Your task to perform on an android device: Search for a cheap bike on Walmart Image 0: 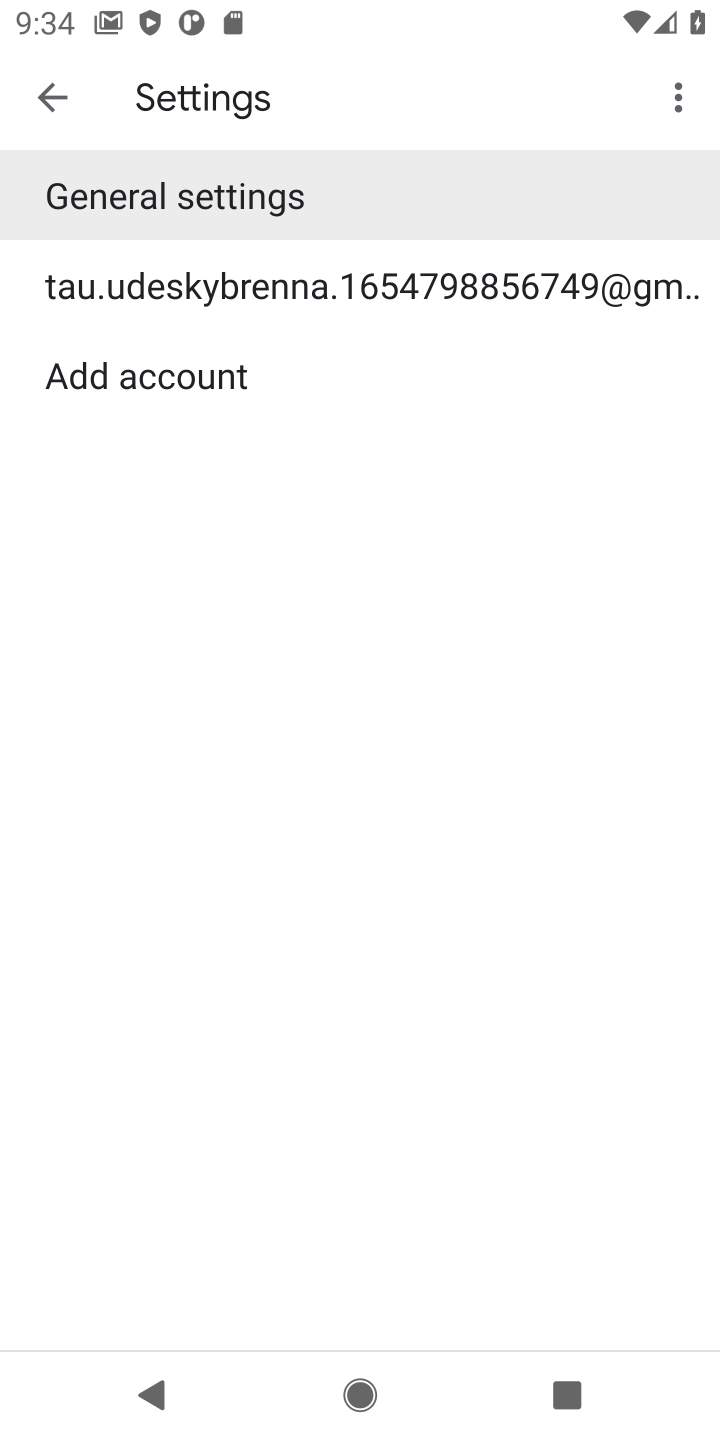
Step 0: press home button
Your task to perform on an android device: Search for a cheap bike on Walmart Image 1: 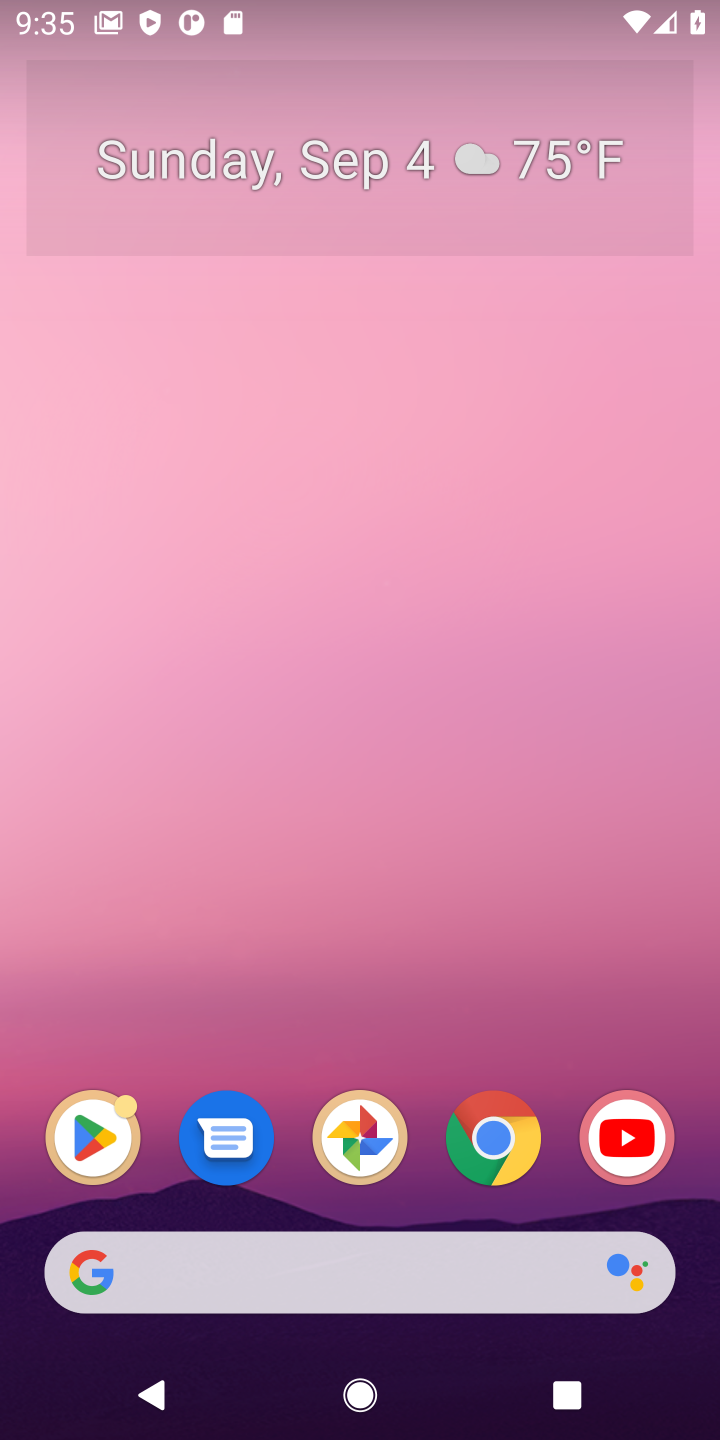
Step 1: click (513, 1153)
Your task to perform on an android device: Search for a cheap bike on Walmart Image 2: 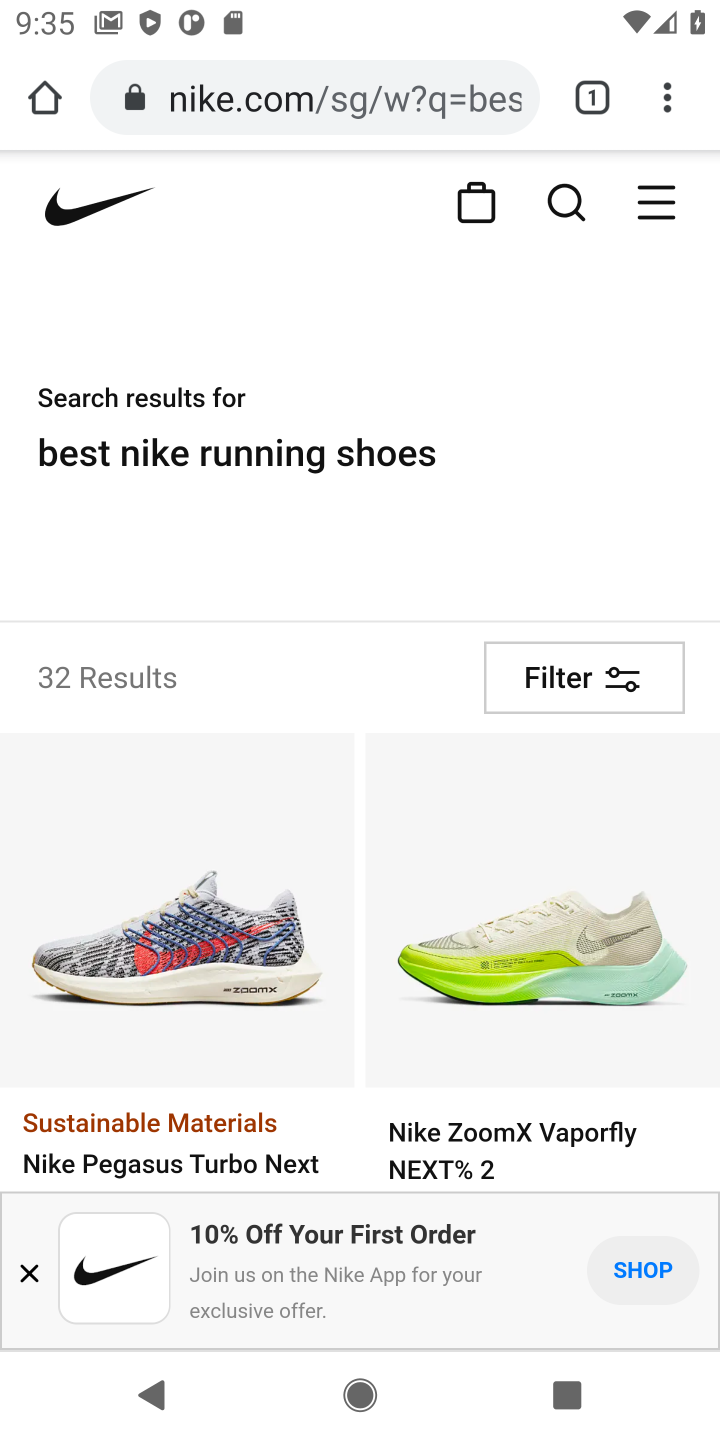
Step 2: click (444, 101)
Your task to perform on an android device: Search for a cheap bike on Walmart Image 3: 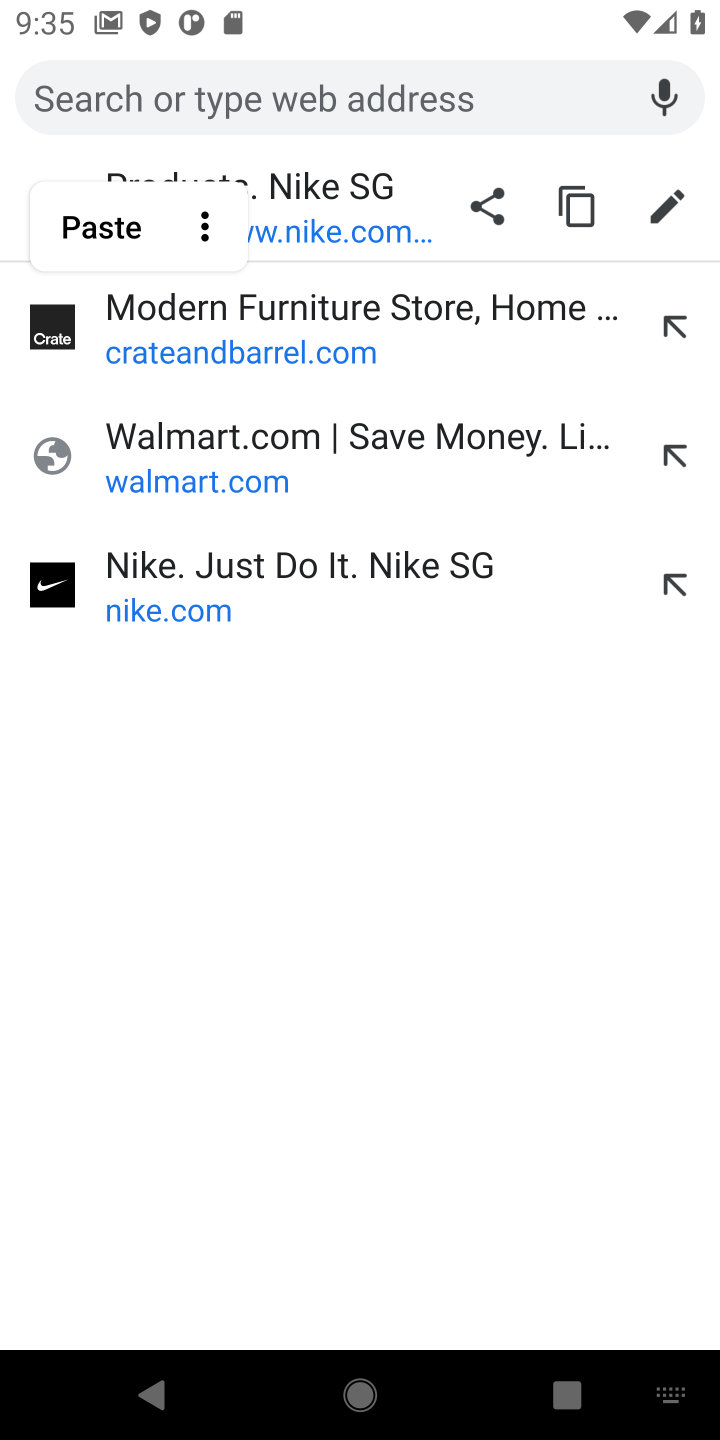
Step 3: type "cheap bike on walmart"
Your task to perform on an android device: Search for a cheap bike on Walmart Image 4: 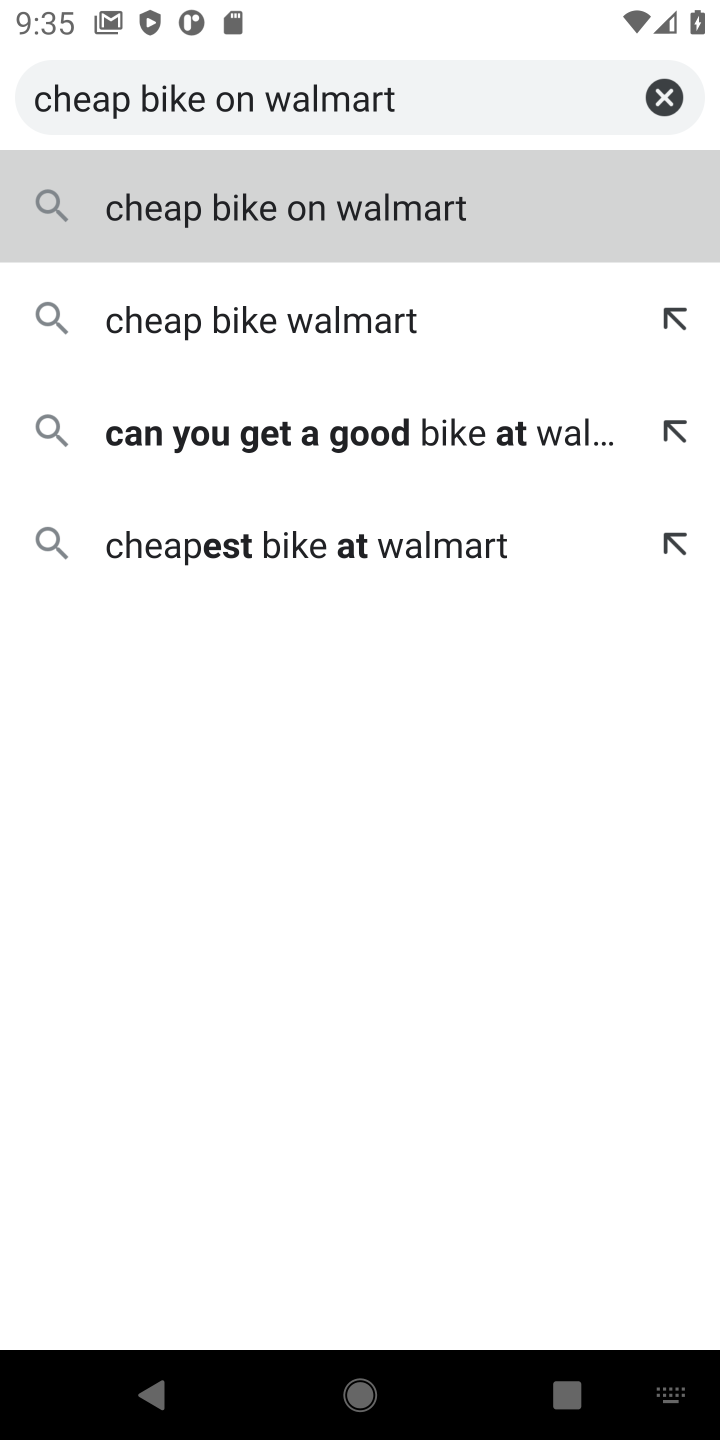
Step 4: click (453, 189)
Your task to perform on an android device: Search for a cheap bike on Walmart Image 5: 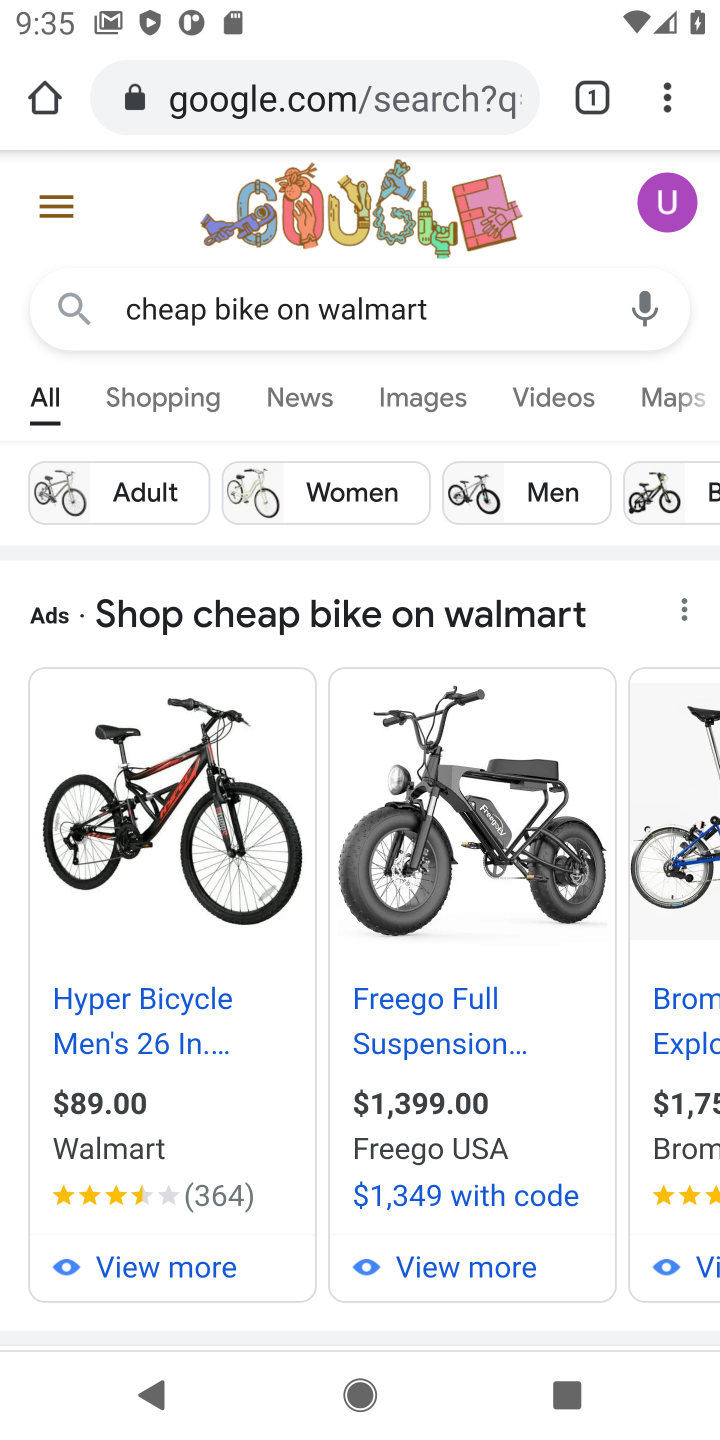
Step 5: drag from (323, 1316) to (145, 176)
Your task to perform on an android device: Search for a cheap bike on Walmart Image 6: 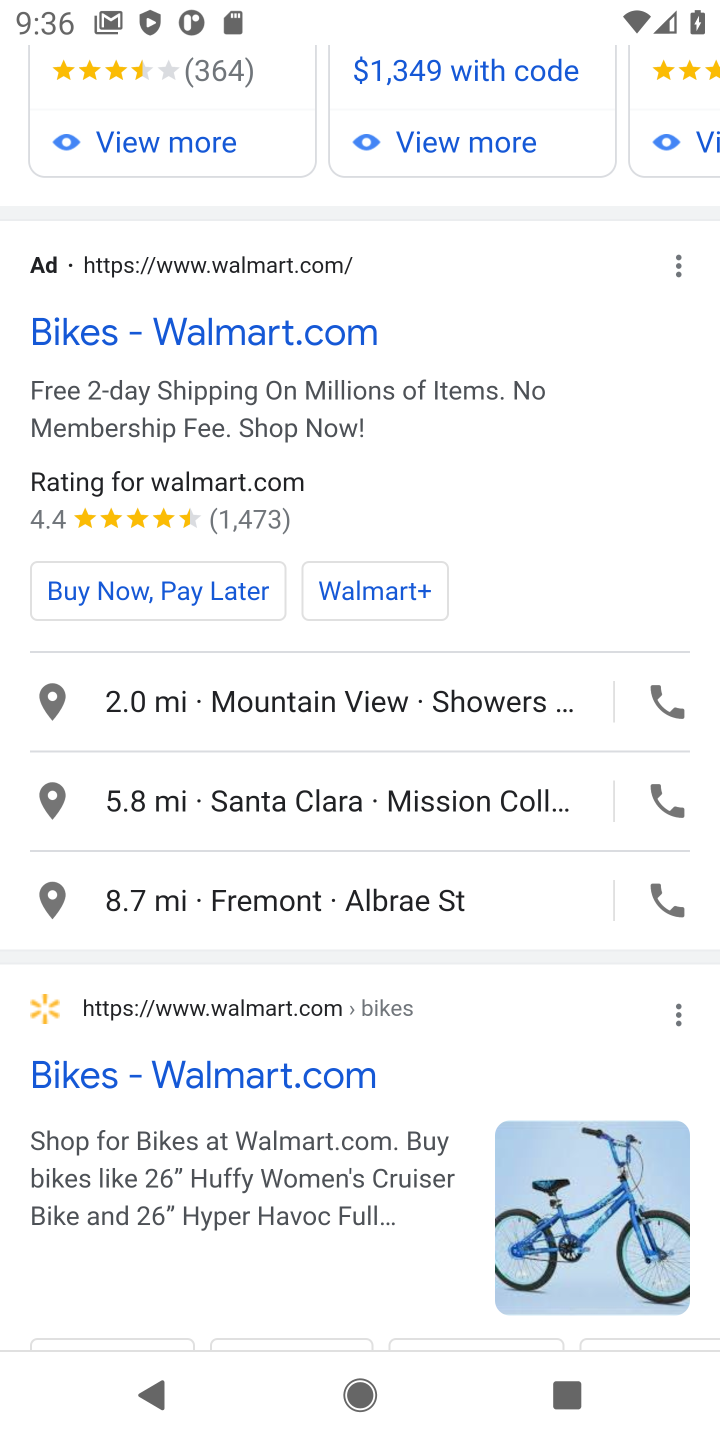
Step 6: click (243, 337)
Your task to perform on an android device: Search for a cheap bike on Walmart Image 7: 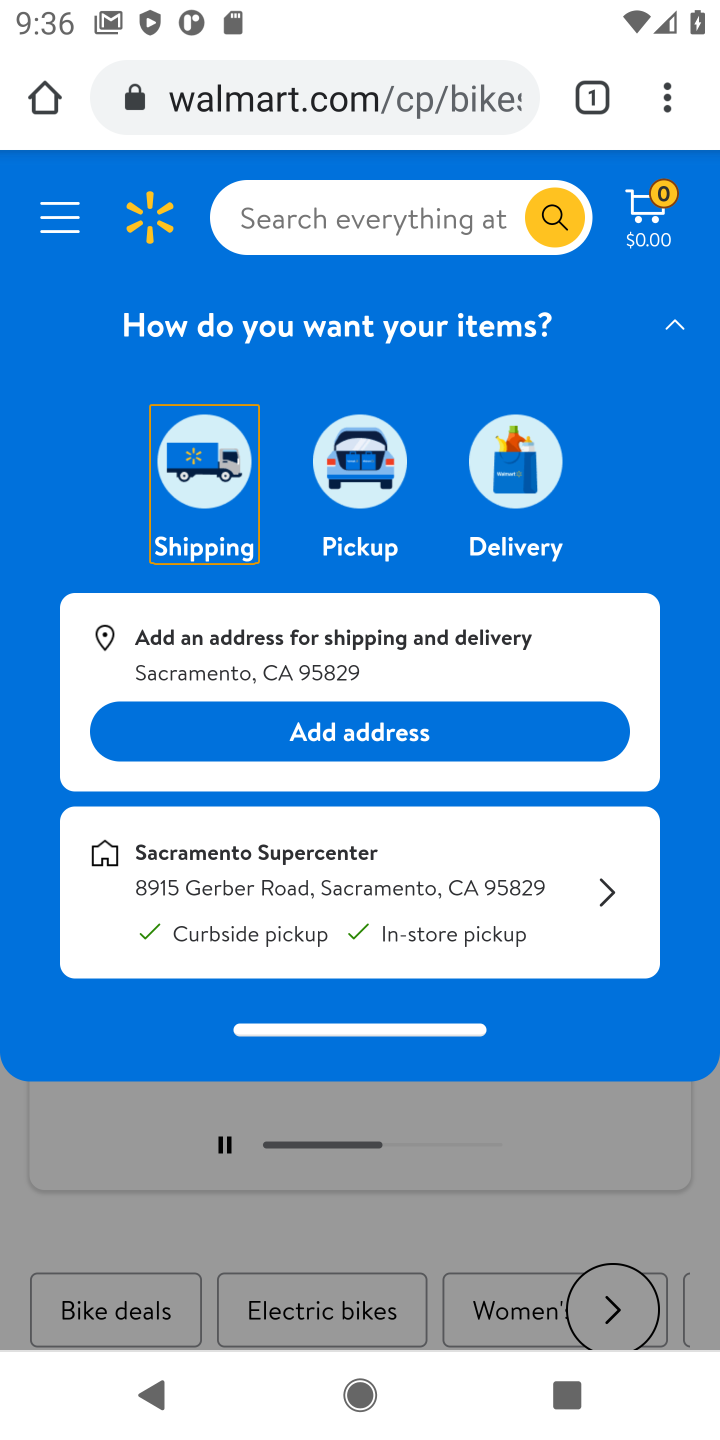
Step 7: task complete